Your task to perform on an android device: Go to Yahoo.com Image 0: 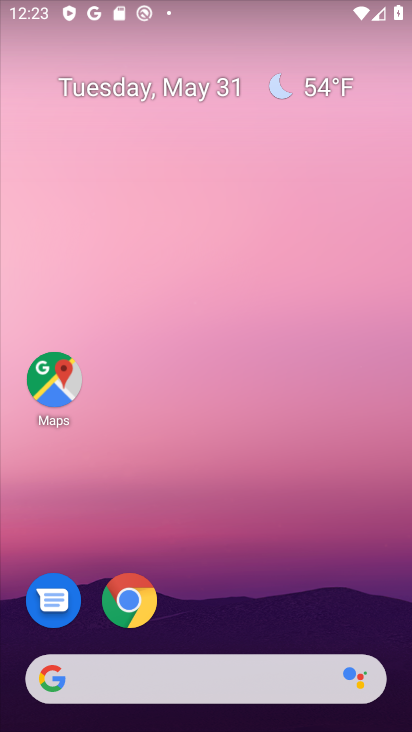
Step 0: drag from (226, 640) to (155, 44)
Your task to perform on an android device: Go to Yahoo.com Image 1: 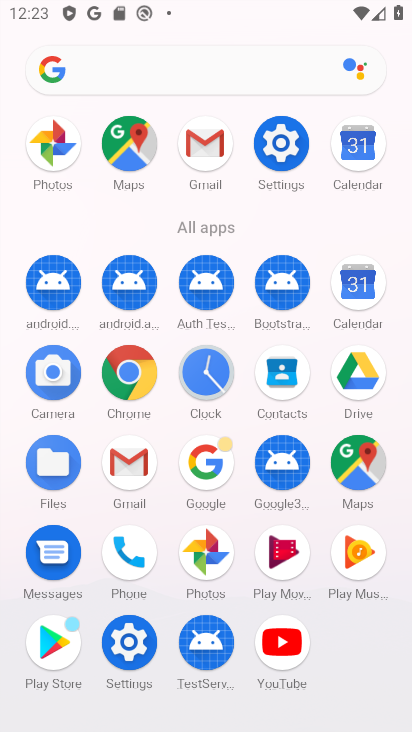
Step 1: click (126, 384)
Your task to perform on an android device: Go to Yahoo.com Image 2: 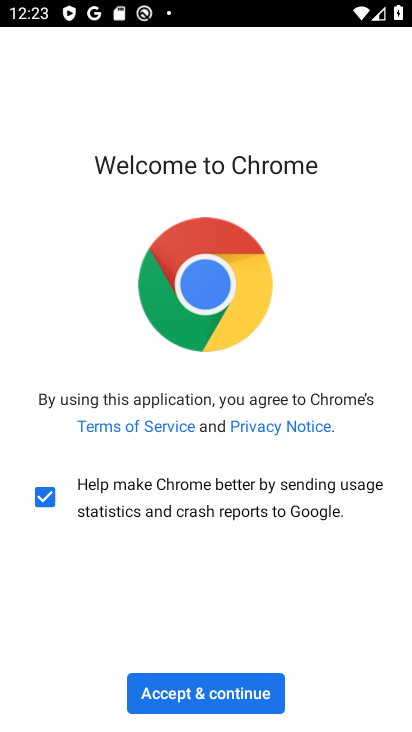
Step 2: click (251, 700)
Your task to perform on an android device: Go to Yahoo.com Image 3: 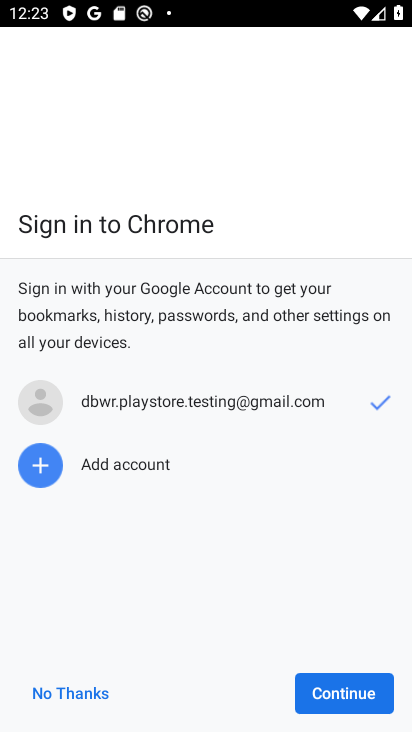
Step 3: click (368, 689)
Your task to perform on an android device: Go to Yahoo.com Image 4: 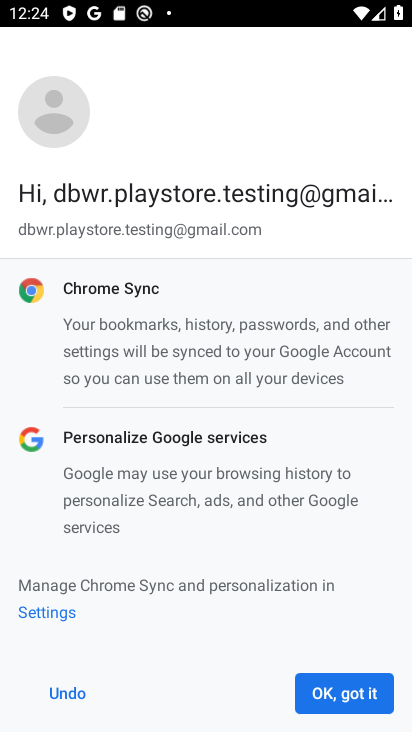
Step 4: click (368, 689)
Your task to perform on an android device: Go to Yahoo.com Image 5: 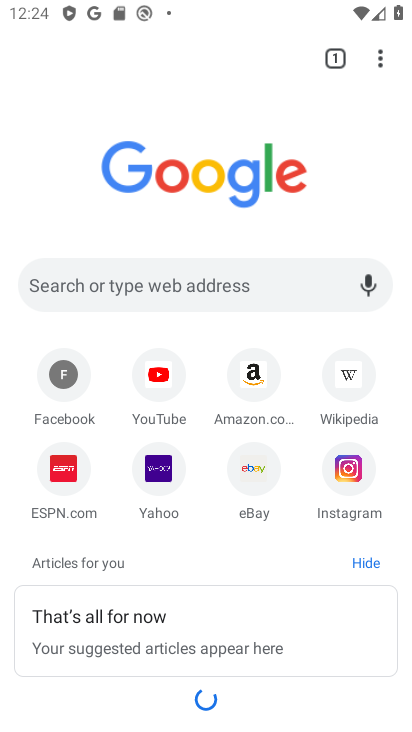
Step 5: click (153, 482)
Your task to perform on an android device: Go to Yahoo.com Image 6: 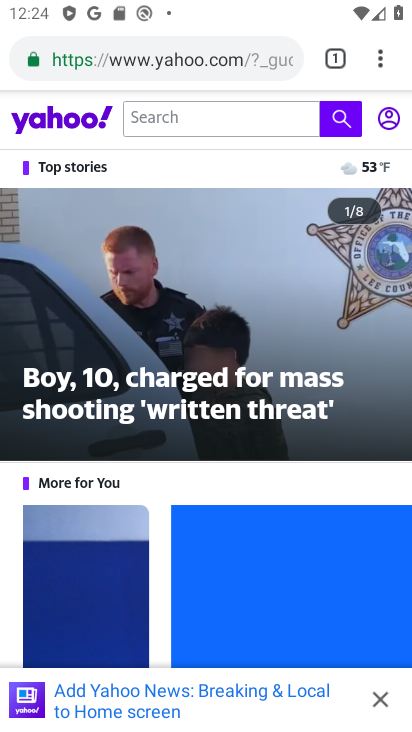
Step 6: task complete